Your task to perform on an android device: change your default location settings in chrome Image 0: 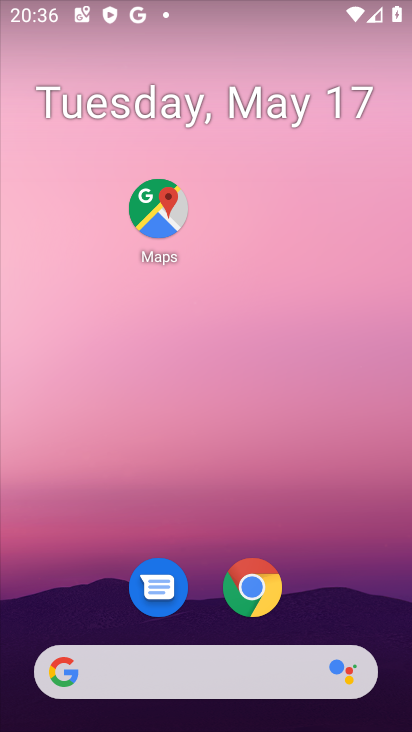
Step 0: click (260, 591)
Your task to perform on an android device: change your default location settings in chrome Image 1: 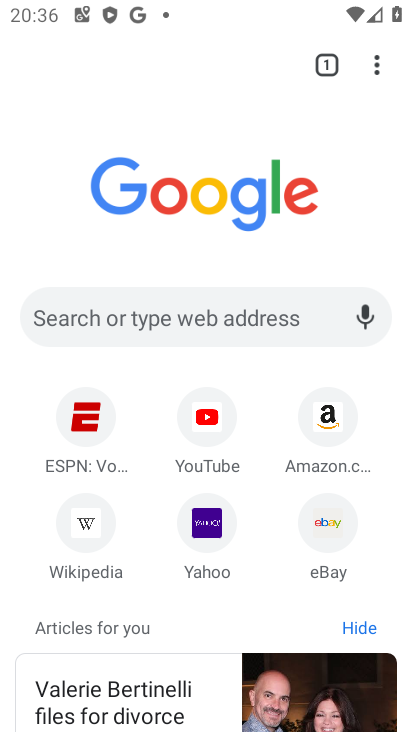
Step 1: click (379, 64)
Your task to perform on an android device: change your default location settings in chrome Image 2: 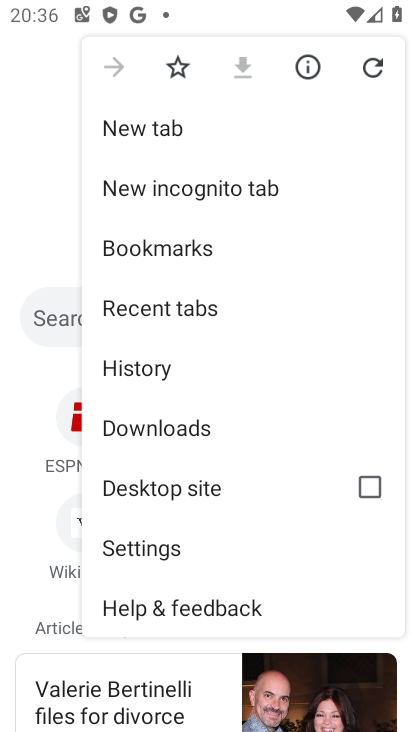
Step 2: click (146, 540)
Your task to perform on an android device: change your default location settings in chrome Image 3: 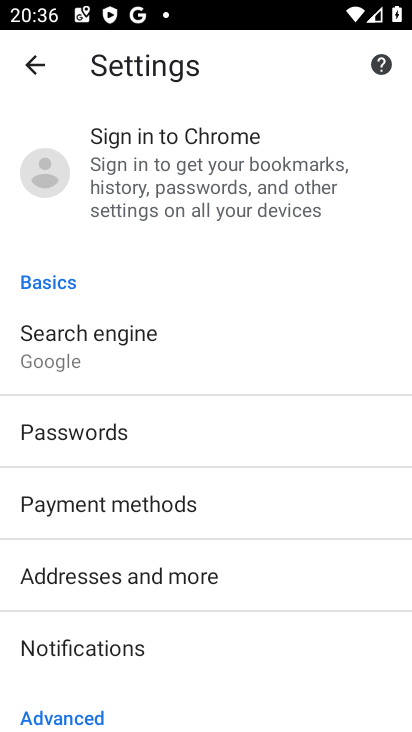
Step 3: drag from (6, 615) to (209, 179)
Your task to perform on an android device: change your default location settings in chrome Image 4: 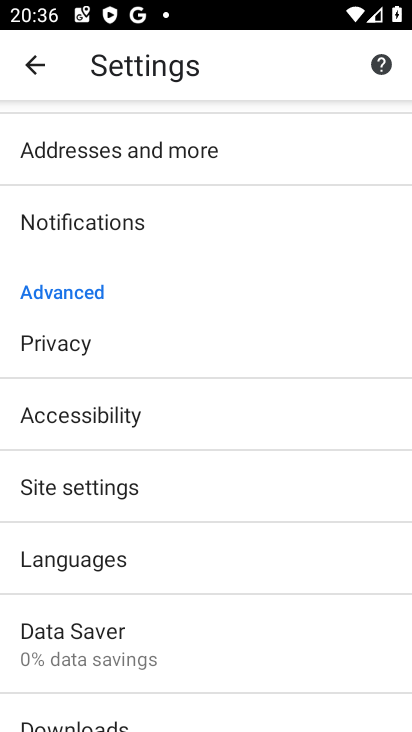
Step 4: click (97, 498)
Your task to perform on an android device: change your default location settings in chrome Image 5: 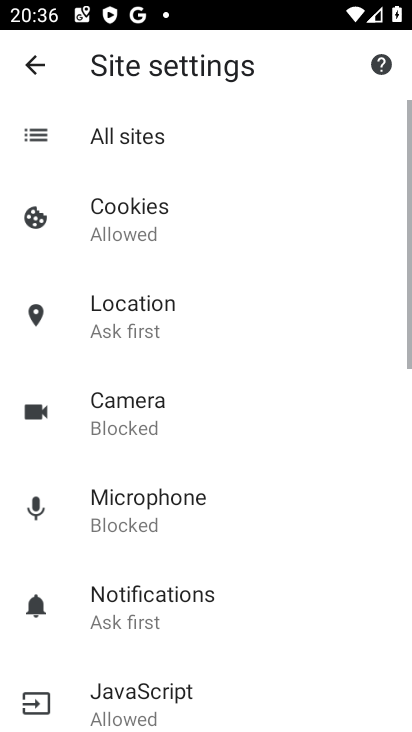
Step 5: click (159, 339)
Your task to perform on an android device: change your default location settings in chrome Image 6: 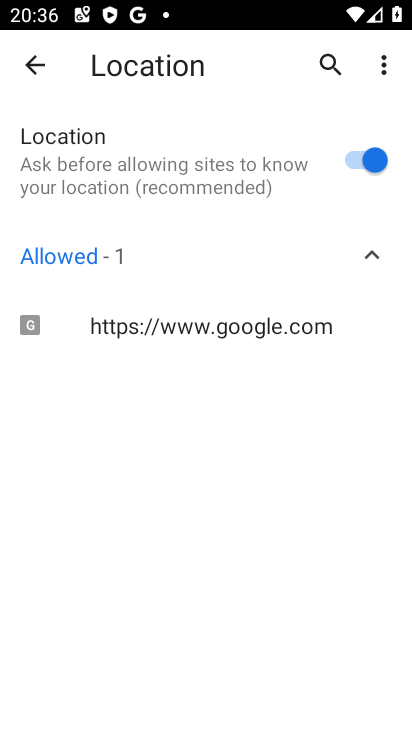
Step 6: click (278, 321)
Your task to perform on an android device: change your default location settings in chrome Image 7: 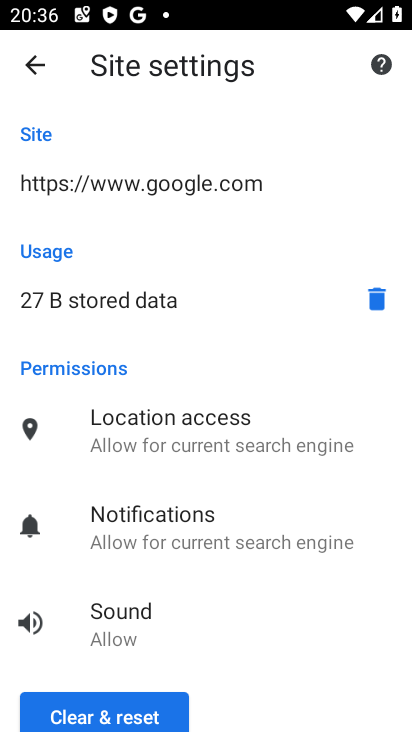
Step 7: click (291, 424)
Your task to perform on an android device: change your default location settings in chrome Image 8: 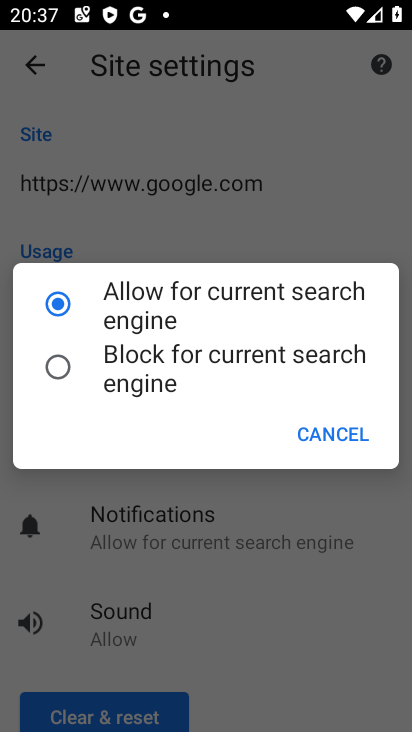
Step 8: task complete